Your task to perform on an android device: turn off priority inbox in the gmail app Image 0: 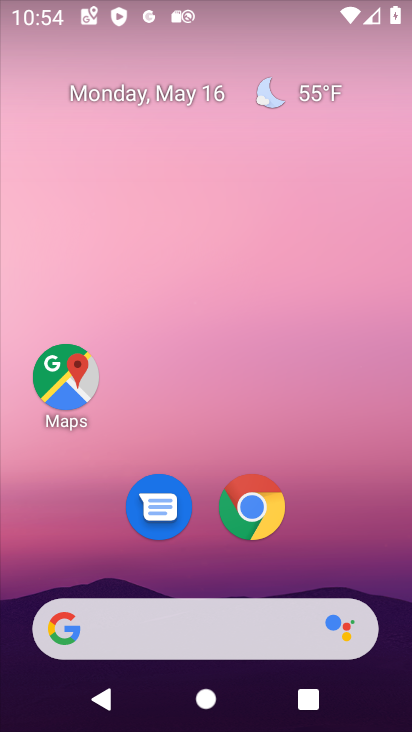
Step 0: drag from (316, 441) to (342, 171)
Your task to perform on an android device: turn off priority inbox in the gmail app Image 1: 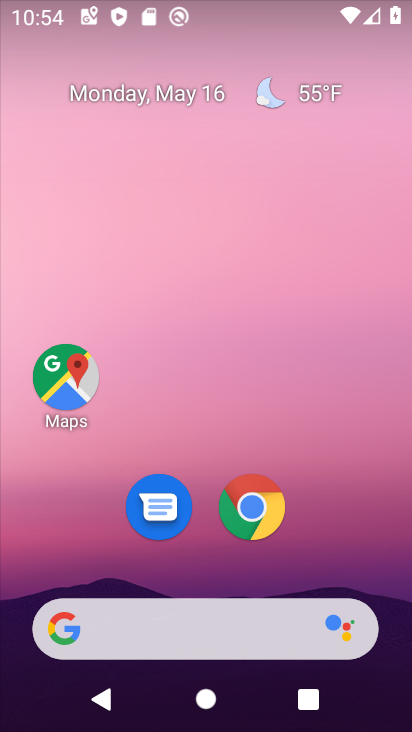
Step 1: drag from (345, 504) to (331, 130)
Your task to perform on an android device: turn off priority inbox in the gmail app Image 2: 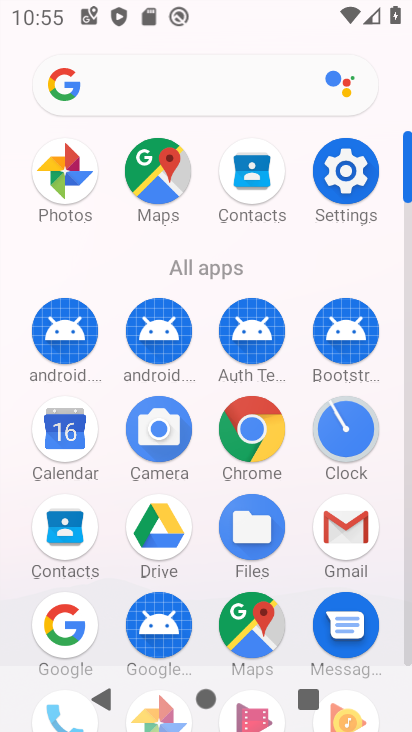
Step 2: click (347, 542)
Your task to perform on an android device: turn off priority inbox in the gmail app Image 3: 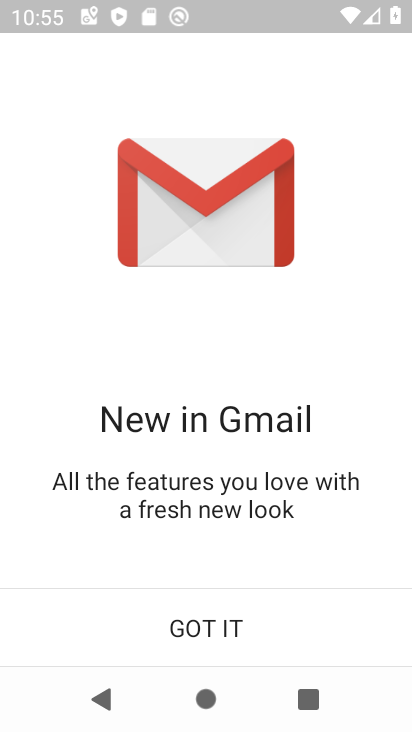
Step 3: click (193, 632)
Your task to perform on an android device: turn off priority inbox in the gmail app Image 4: 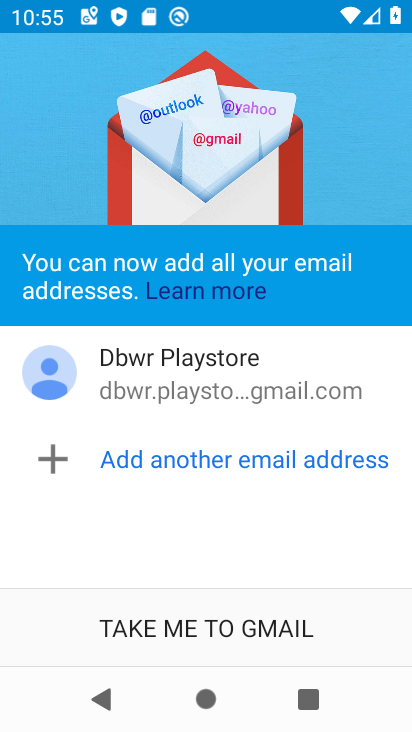
Step 4: click (195, 622)
Your task to perform on an android device: turn off priority inbox in the gmail app Image 5: 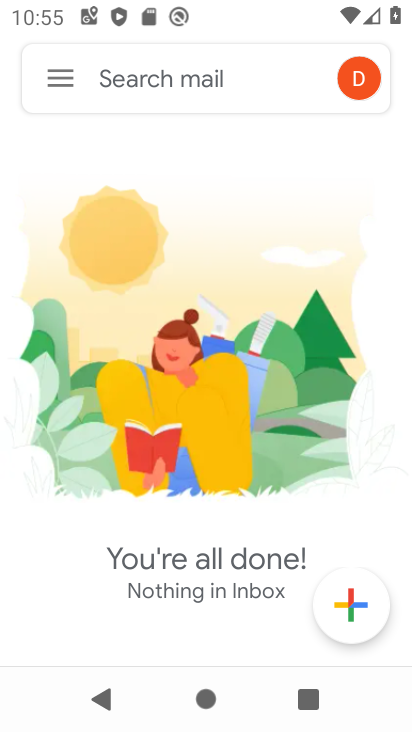
Step 5: click (61, 82)
Your task to perform on an android device: turn off priority inbox in the gmail app Image 6: 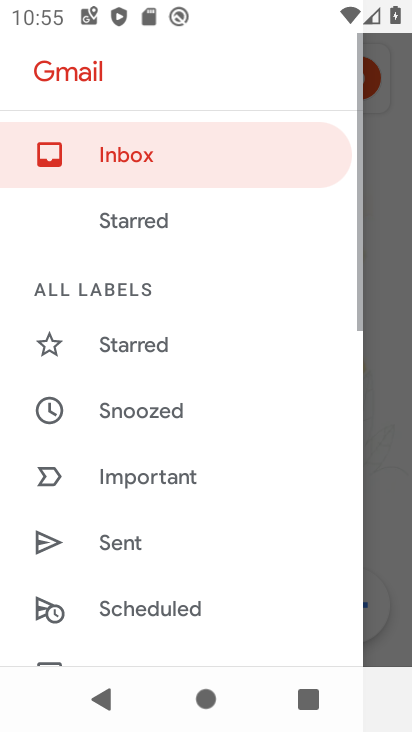
Step 6: drag from (199, 575) to (209, 179)
Your task to perform on an android device: turn off priority inbox in the gmail app Image 7: 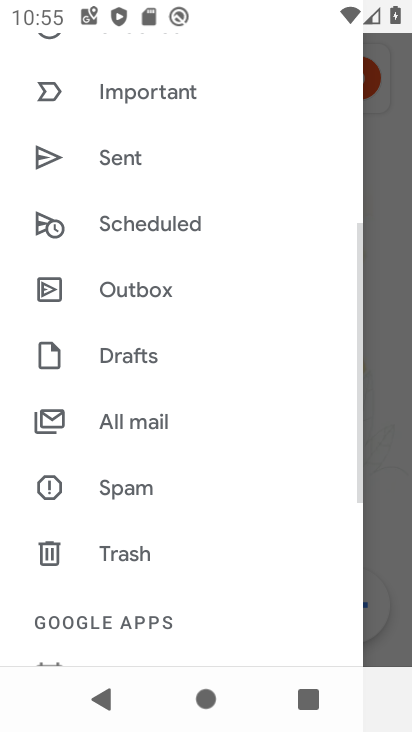
Step 7: drag from (228, 424) to (228, 98)
Your task to perform on an android device: turn off priority inbox in the gmail app Image 8: 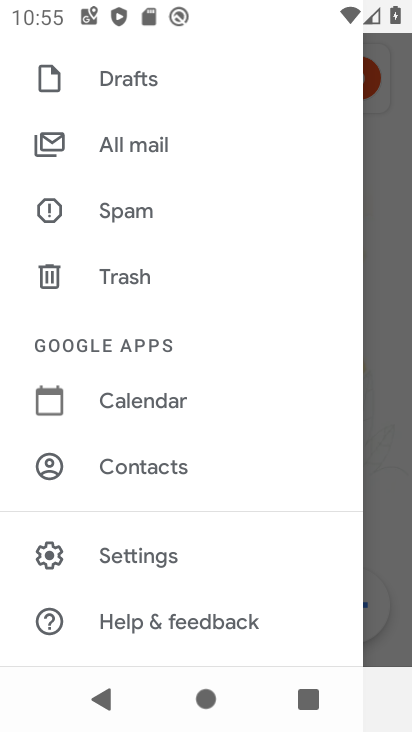
Step 8: click (156, 563)
Your task to perform on an android device: turn off priority inbox in the gmail app Image 9: 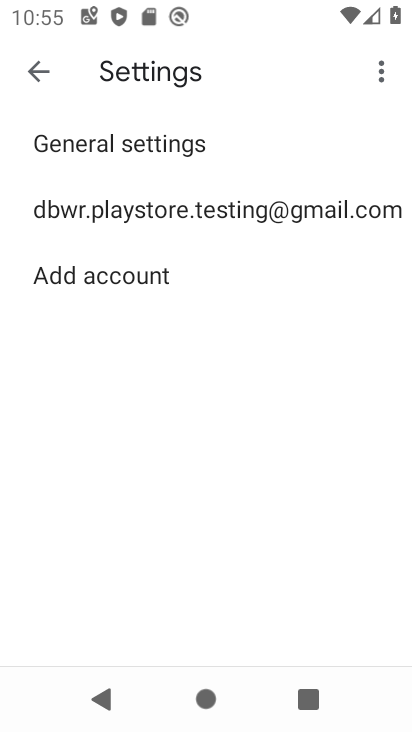
Step 9: click (178, 223)
Your task to perform on an android device: turn off priority inbox in the gmail app Image 10: 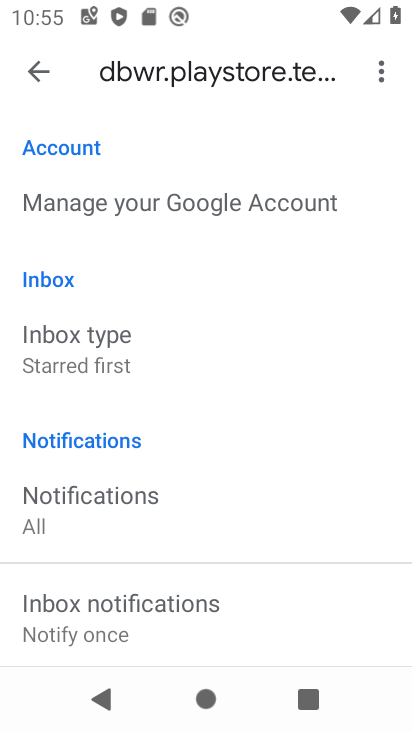
Step 10: drag from (192, 624) to (221, 186)
Your task to perform on an android device: turn off priority inbox in the gmail app Image 11: 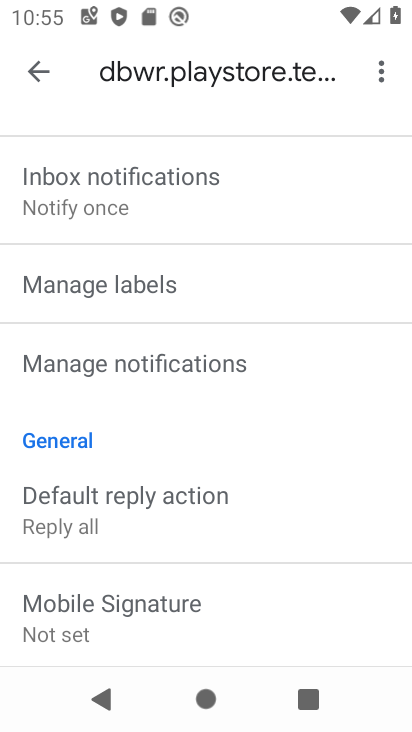
Step 11: drag from (225, 575) to (247, 289)
Your task to perform on an android device: turn off priority inbox in the gmail app Image 12: 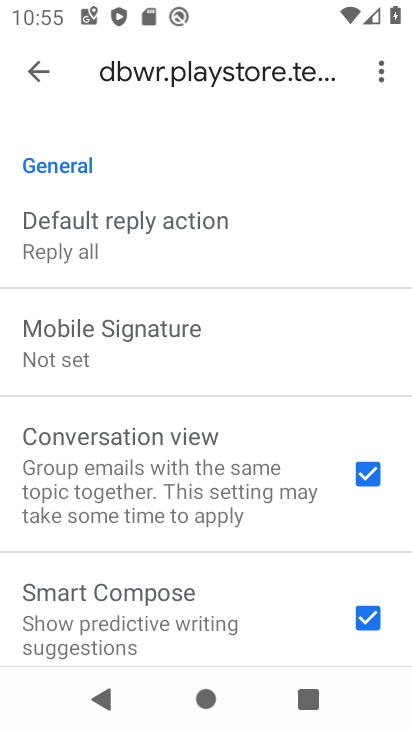
Step 12: drag from (218, 613) to (232, 274)
Your task to perform on an android device: turn off priority inbox in the gmail app Image 13: 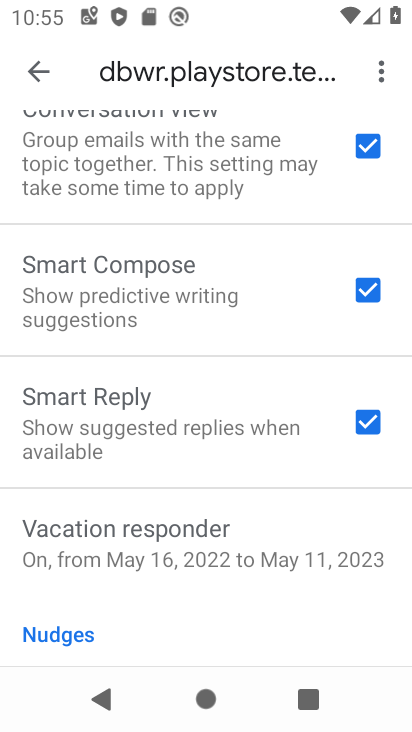
Step 13: drag from (225, 624) to (173, 719)
Your task to perform on an android device: turn off priority inbox in the gmail app Image 14: 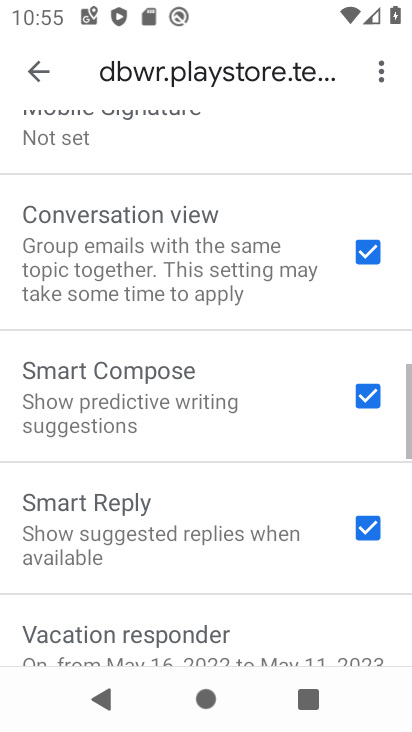
Step 14: drag from (176, 316) to (180, 726)
Your task to perform on an android device: turn off priority inbox in the gmail app Image 15: 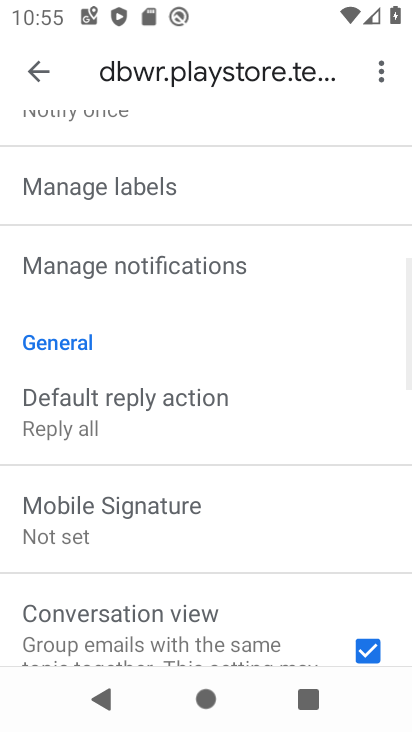
Step 15: drag from (179, 268) to (165, 601)
Your task to perform on an android device: turn off priority inbox in the gmail app Image 16: 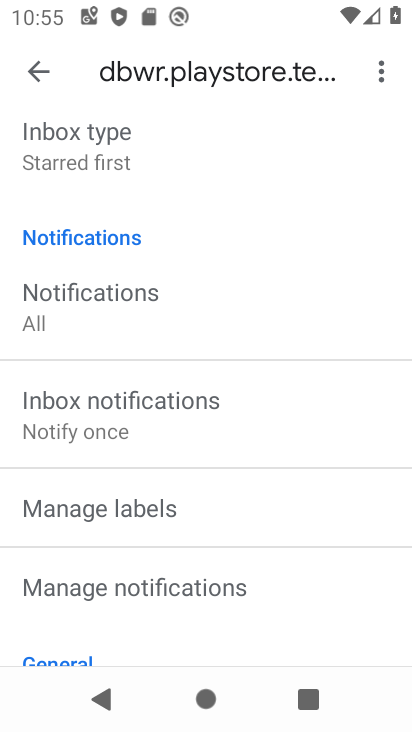
Step 16: drag from (162, 188) to (155, 531)
Your task to perform on an android device: turn off priority inbox in the gmail app Image 17: 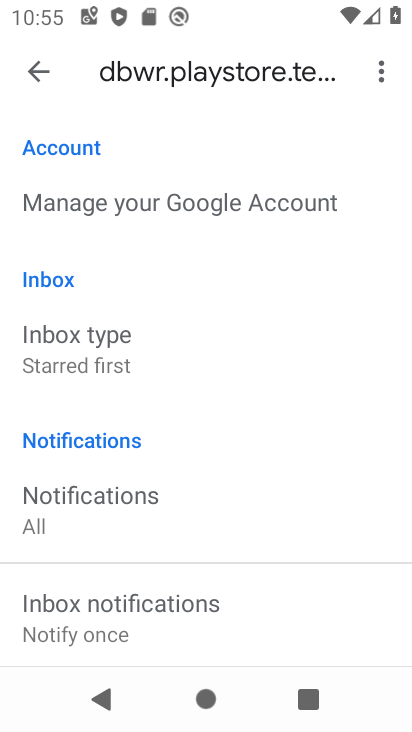
Step 17: click (168, 375)
Your task to perform on an android device: turn off priority inbox in the gmail app Image 18: 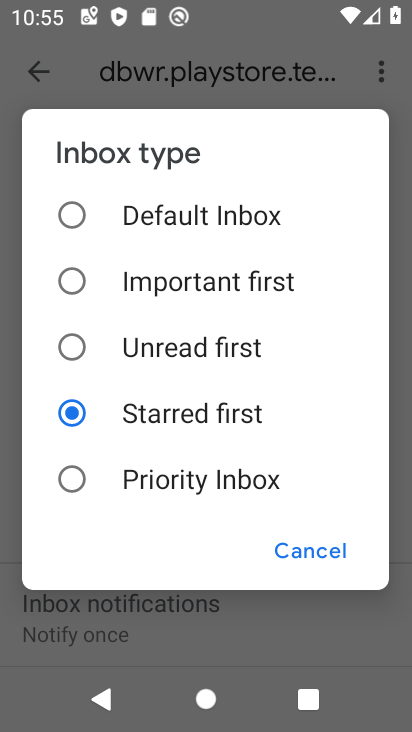
Step 18: task complete